Your task to perform on an android device: When is my next appointment? Image 0: 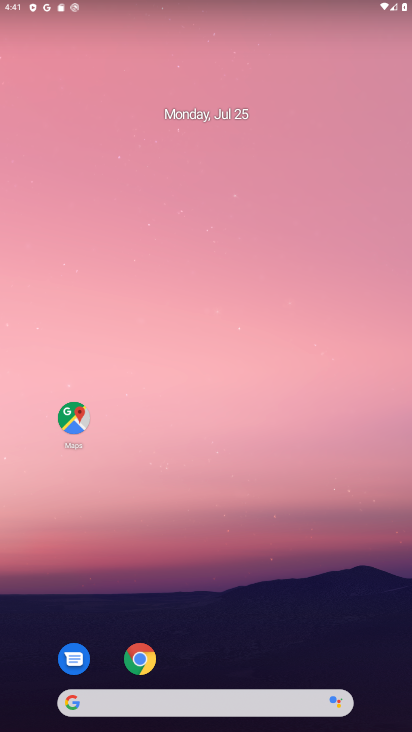
Step 0: drag from (207, 455) to (211, 279)
Your task to perform on an android device: When is my next appointment? Image 1: 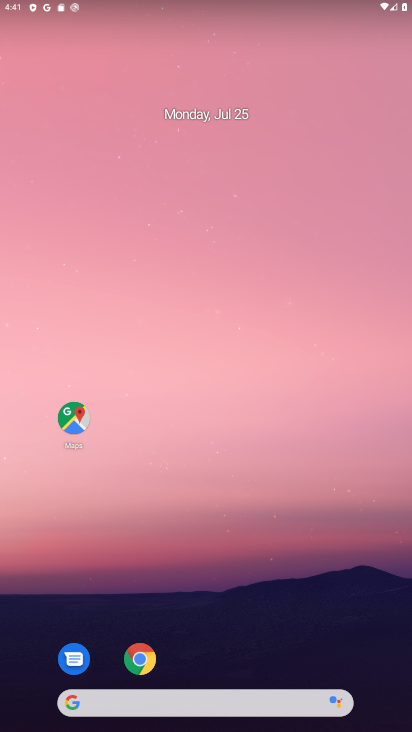
Step 1: drag from (187, 606) to (187, 35)
Your task to perform on an android device: When is my next appointment? Image 2: 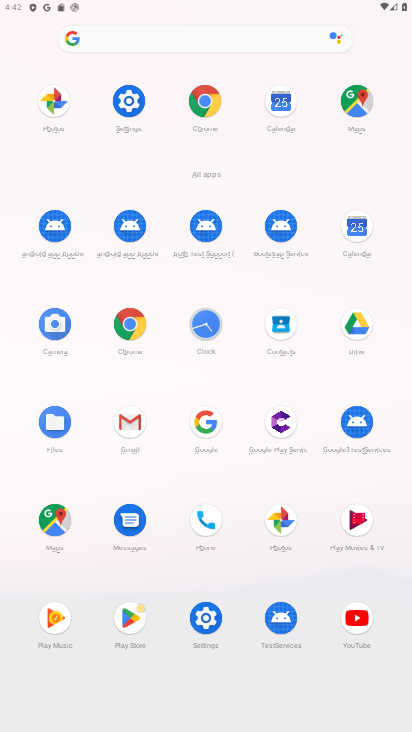
Step 2: click (355, 234)
Your task to perform on an android device: When is my next appointment? Image 3: 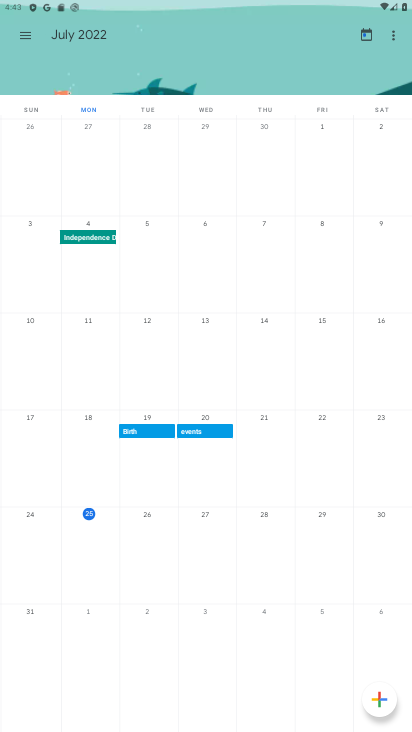
Step 3: task complete